Your task to perform on an android device: Search for sushi restaurants on Maps Image 0: 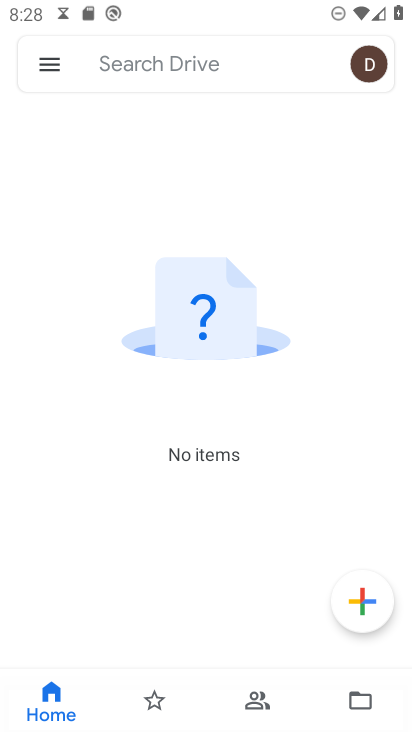
Step 0: press home button
Your task to perform on an android device: Search for sushi restaurants on Maps Image 1: 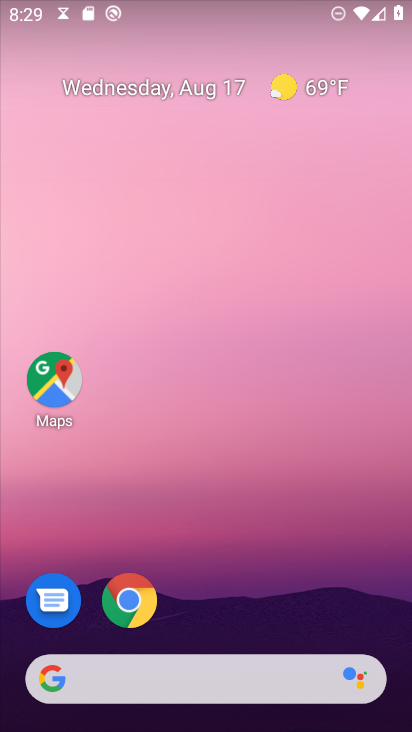
Step 1: click (64, 378)
Your task to perform on an android device: Search for sushi restaurants on Maps Image 2: 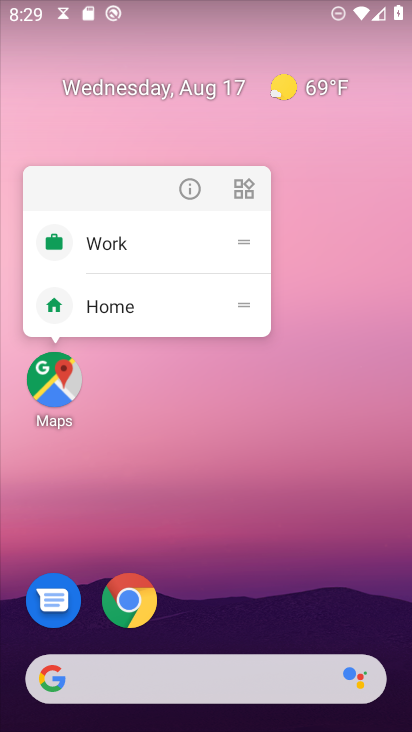
Step 2: click (55, 369)
Your task to perform on an android device: Search for sushi restaurants on Maps Image 3: 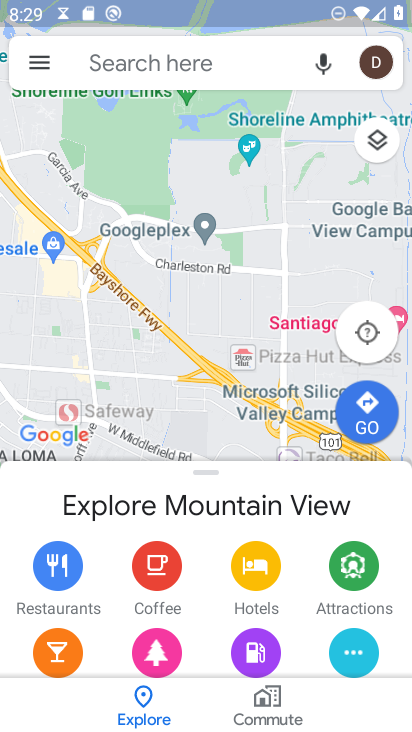
Step 3: click (199, 56)
Your task to perform on an android device: Search for sushi restaurants on Maps Image 4: 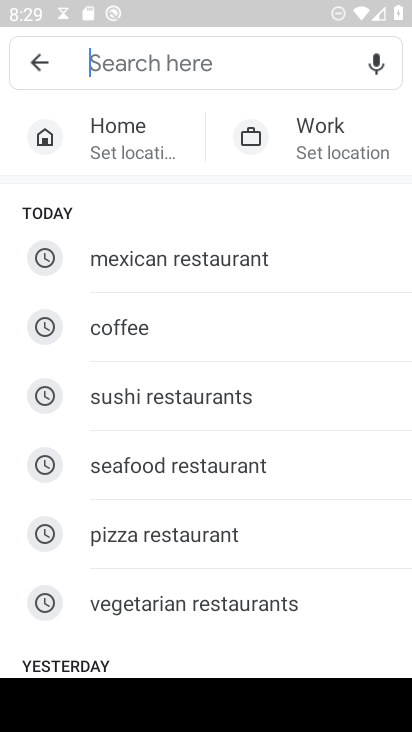
Step 4: click (138, 394)
Your task to perform on an android device: Search for sushi restaurants on Maps Image 5: 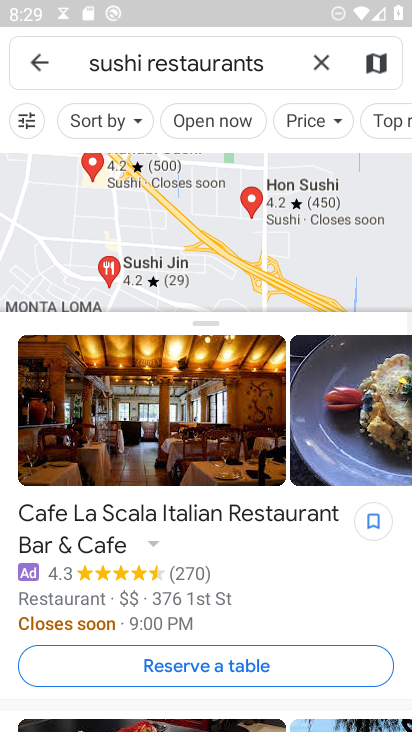
Step 5: task complete